Your task to perform on an android device: set the timer Image 0: 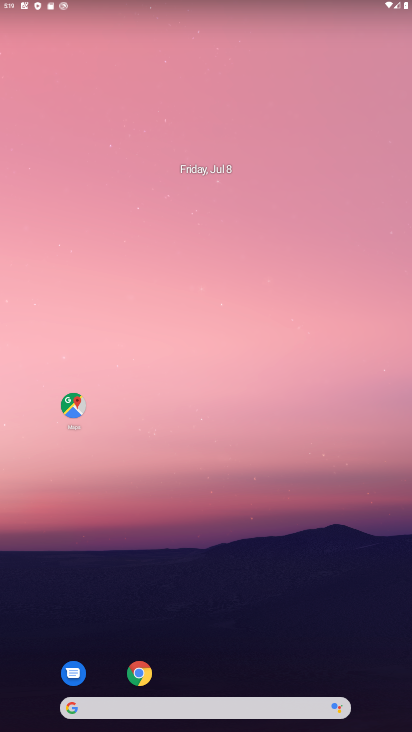
Step 0: drag from (200, 657) to (128, 12)
Your task to perform on an android device: set the timer Image 1: 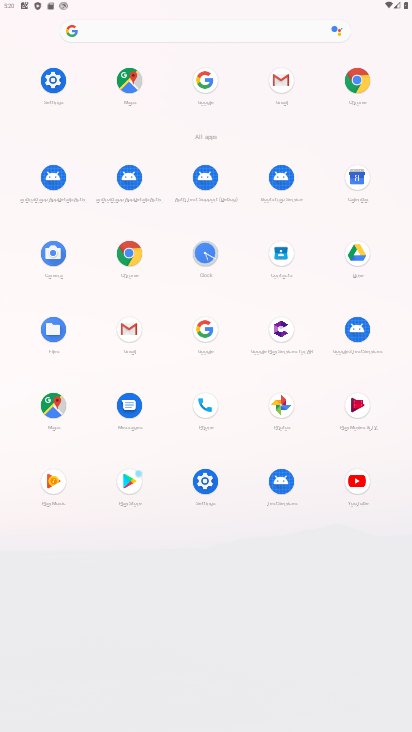
Step 1: click (208, 258)
Your task to perform on an android device: set the timer Image 2: 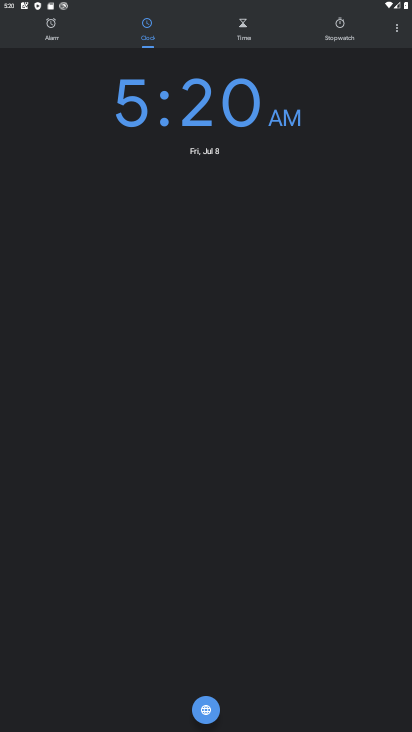
Step 2: click (238, 31)
Your task to perform on an android device: set the timer Image 3: 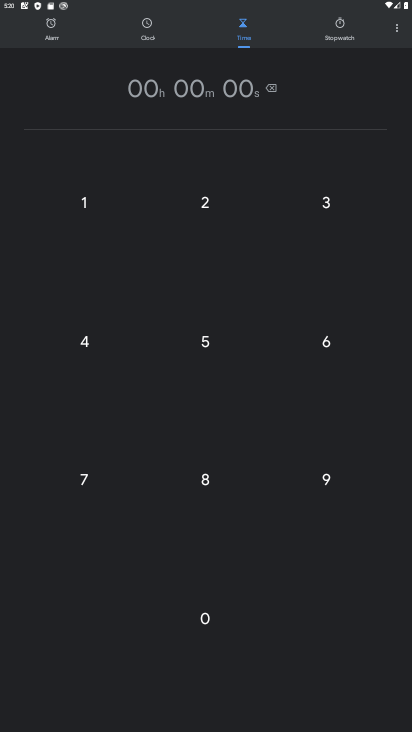
Step 3: click (204, 206)
Your task to perform on an android device: set the timer Image 4: 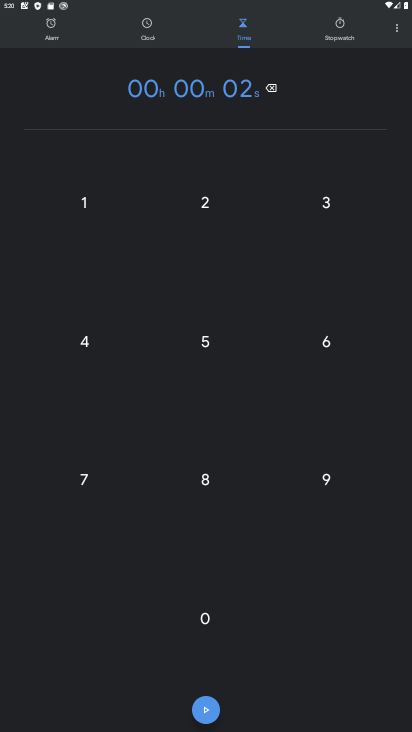
Step 4: click (209, 618)
Your task to perform on an android device: set the timer Image 5: 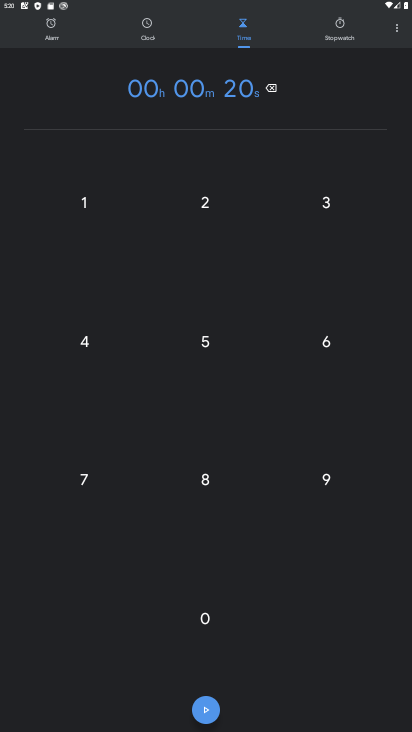
Step 5: click (199, 203)
Your task to perform on an android device: set the timer Image 6: 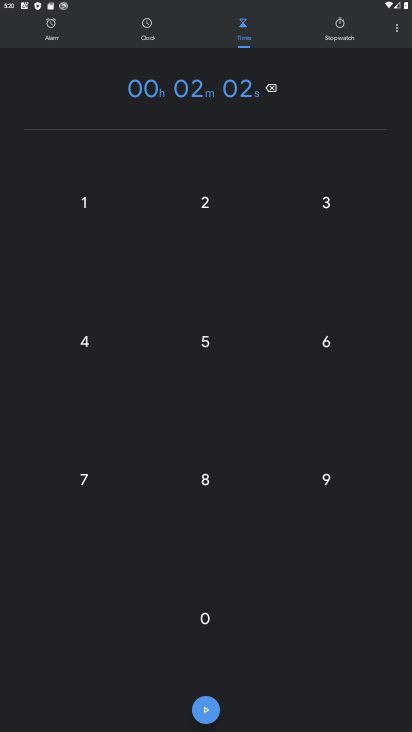
Step 6: click (211, 630)
Your task to perform on an android device: set the timer Image 7: 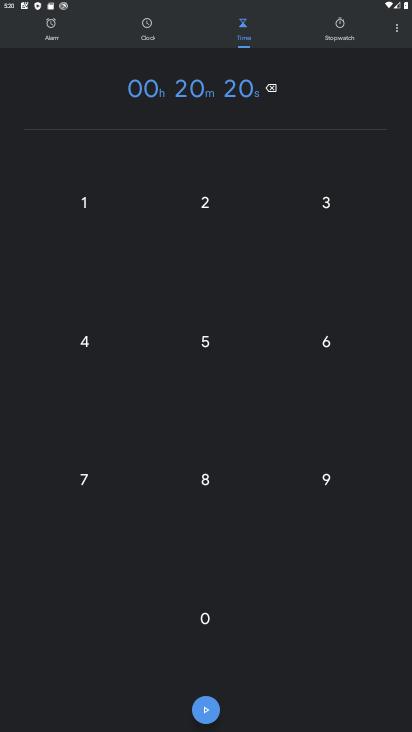
Step 7: click (207, 700)
Your task to perform on an android device: set the timer Image 8: 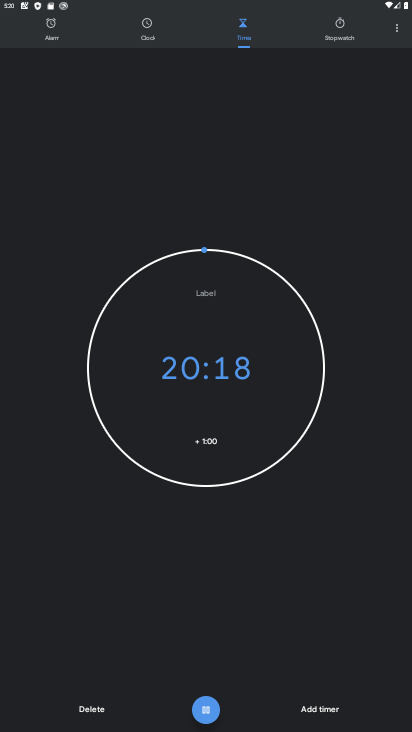
Step 8: click (327, 713)
Your task to perform on an android device: set the timer Image 9: 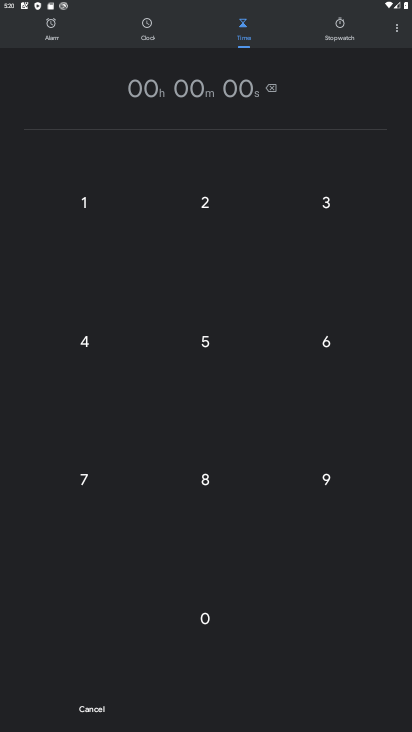
Step 9: task complete